Your task to perform on an android device: turn pop-ups on in chrome Image 0: 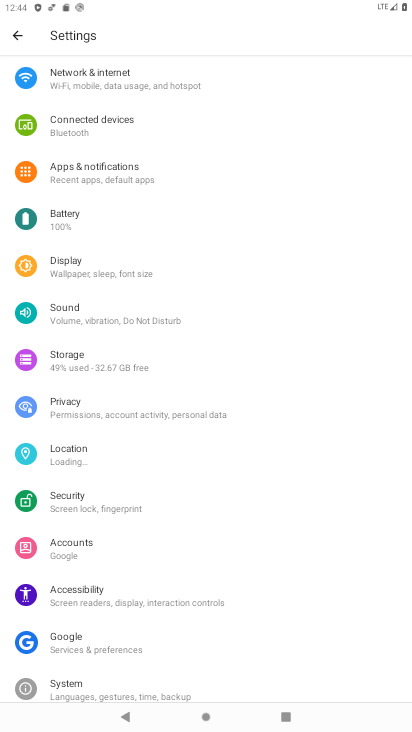
Step 0: press home button
Your task to perform on an android device: turn pop-ups on in chrome Image 1: 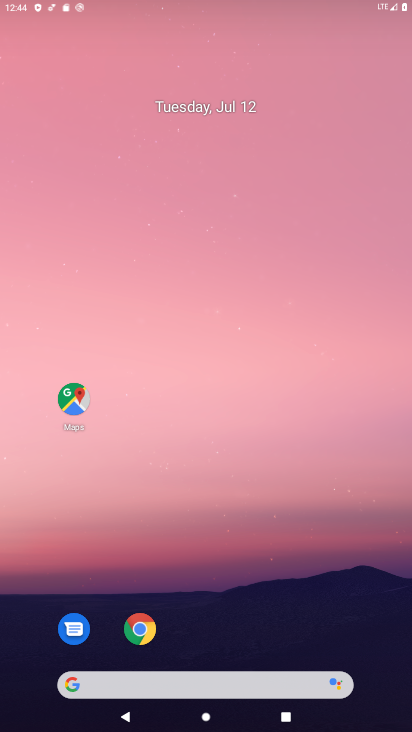
Step 1: drag from (274, 699) to (263, 0)
Your task to perform on an android device: turn pop-ups on in chrome Image 2: 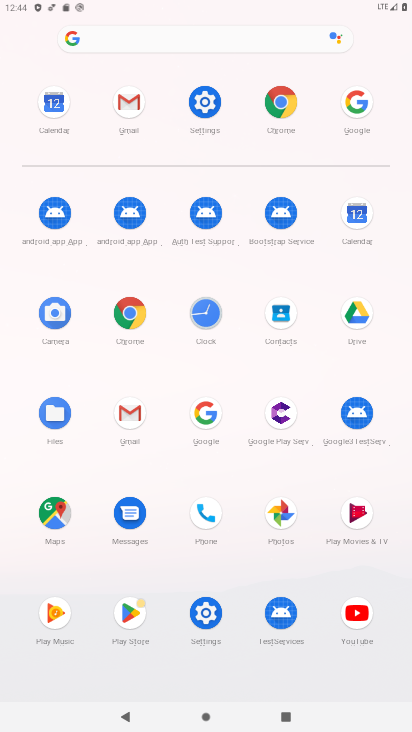
Step 2: click (128, 322)
Your task to perform on an android device: turn pop-ups on in chrome Image 3: 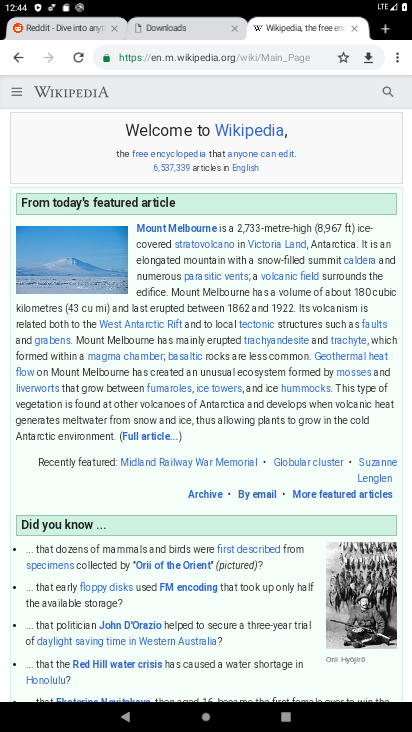
Step 3: drag from (398, 51) to (261, 396)
Your task to perform on an android device: turn pop-ups on in chrome Image 4: 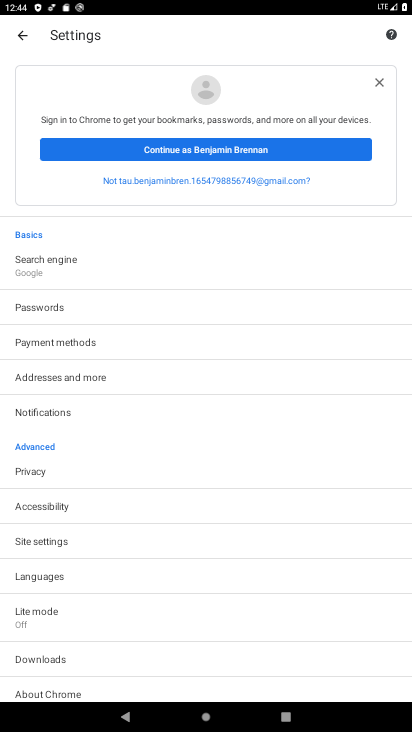
Step 4: click (65, 541)
Your task to perform on an android device: turn pop-ups on in chrome Image 5: 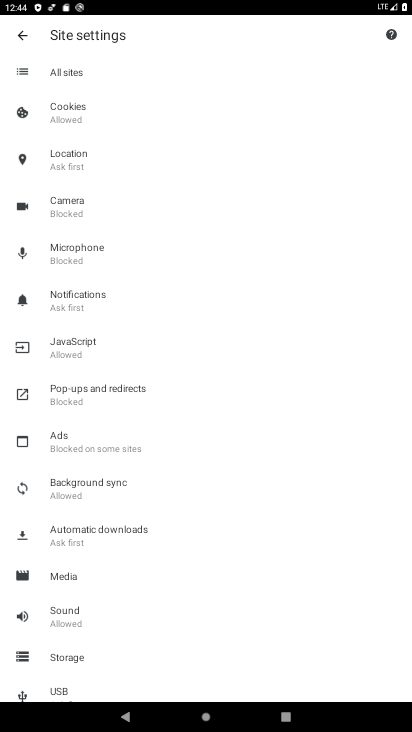
Step 5: drag from (96, 648) to (131, 473)
Your task to perform on an android device: turn pop-ups on in chrome Image 6: 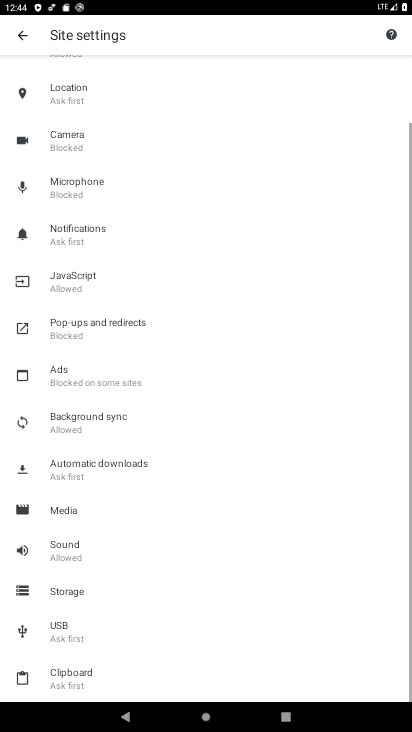
Step 6: click (143, 335)
Your task to perform on an android device: turn pop-ups on in chrome Image 7: 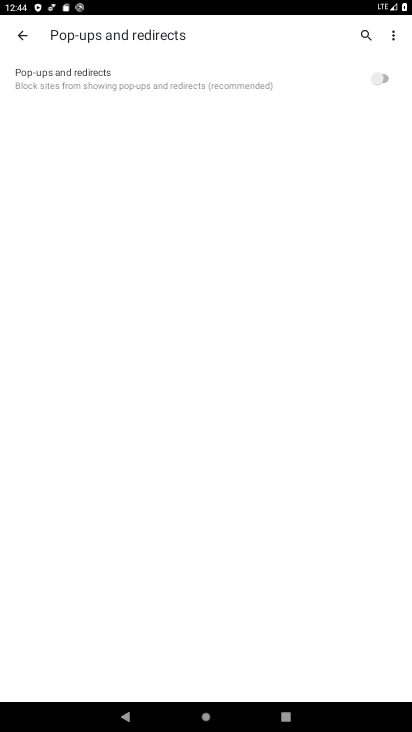
Step 7: click (383, 80)
Your task to perform on an android device: turn pop-ups on in chrome Image 8: 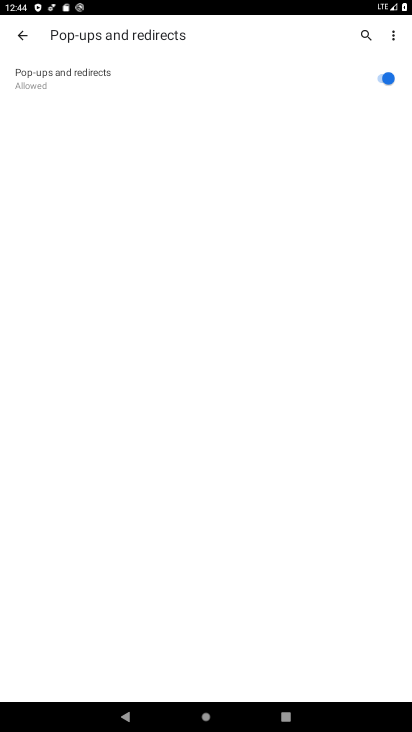
Step 8: task complete